Your task to perform on an android device: see tabs open on other devices in the chrome app Image 0: 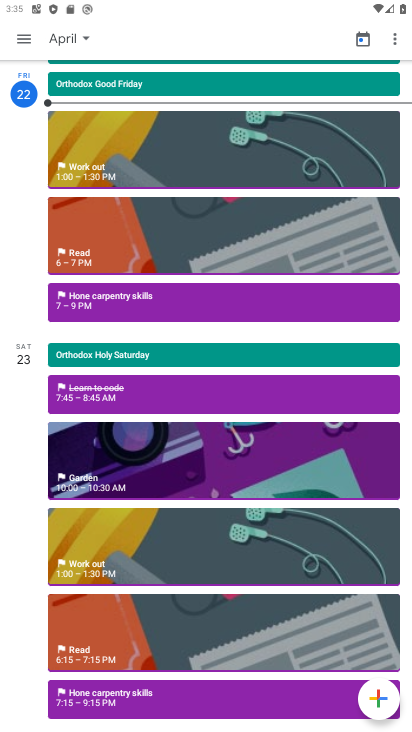
Step 0: press home button
Your task to perform on an android device: see tabs open on other devices in the chrome app Image 1: 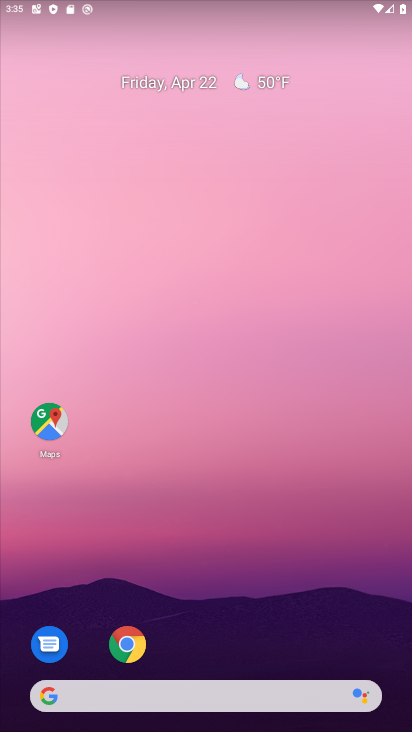
Step 1: drag from (217, 608) to (251, 61)
Your task to perform on an android device: see tabs open on other devices in the chrome app Image 2: 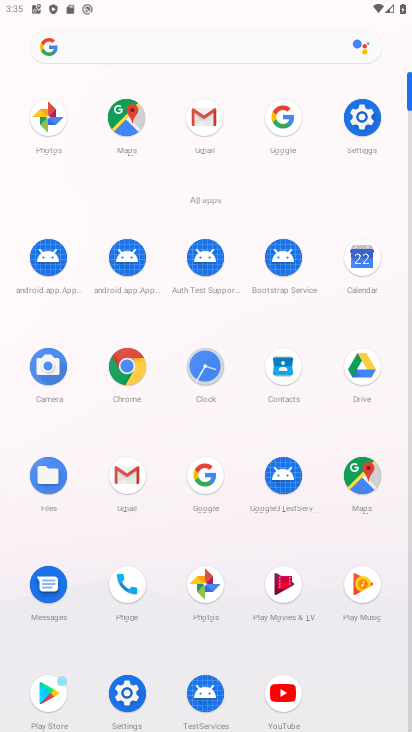
Step 2: click (133, 379)
Your task to perform on an android device: see tabs open on other devices in the chrome app Image 3: 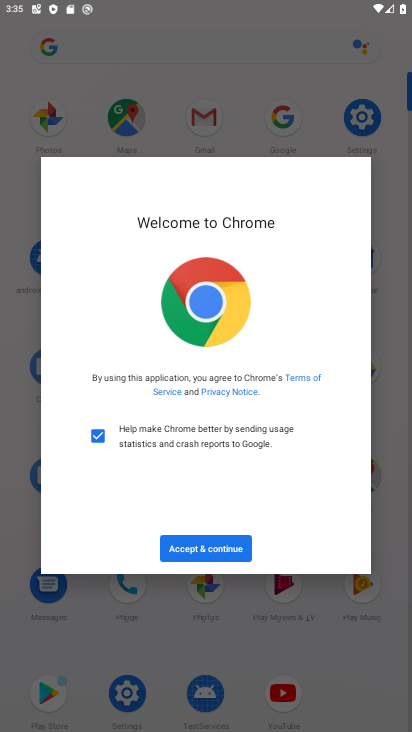
Step 3: click (191, 540)
Your task to perform on an android device: see tabs open on other devices in the chrome app Image 4: 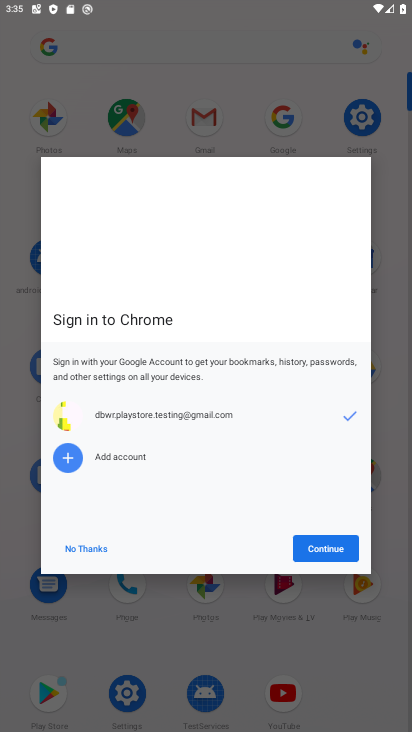
Step 4: click (312, 548)
Your task to perform on an android device: see tabs open on other devices in the chrome app Image 5: 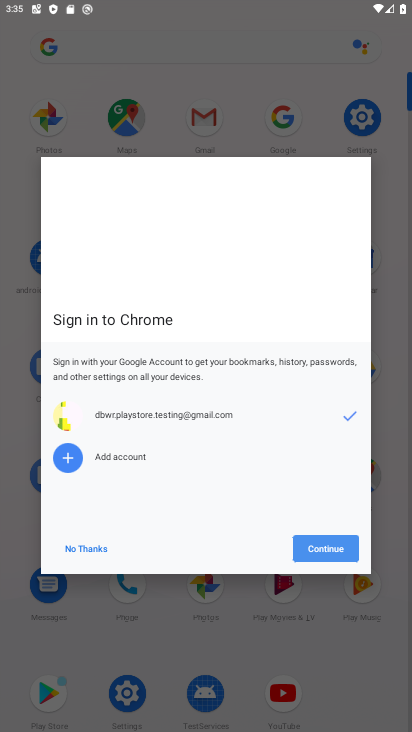
Step 5: click (312, 548)
Your task to perform on an android device: see tabs open on other devices in the chrome app Image 6: 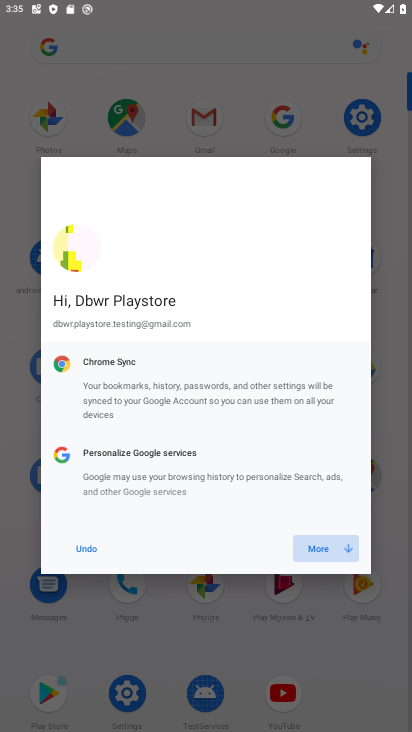
Step 6: click (250, 579)
Your task to perform on an android device: see tabs open on other devices in the chrome app Image 7: 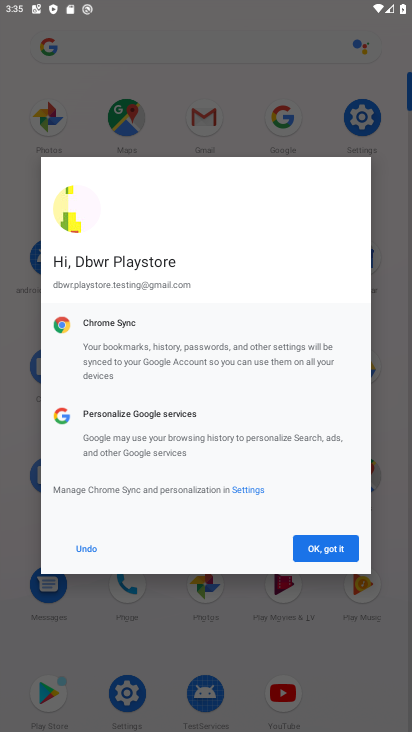
Step 7: click (306, 545)
Your task to perform on an android device: see tabs open on other devices in the chrome app Image 8: 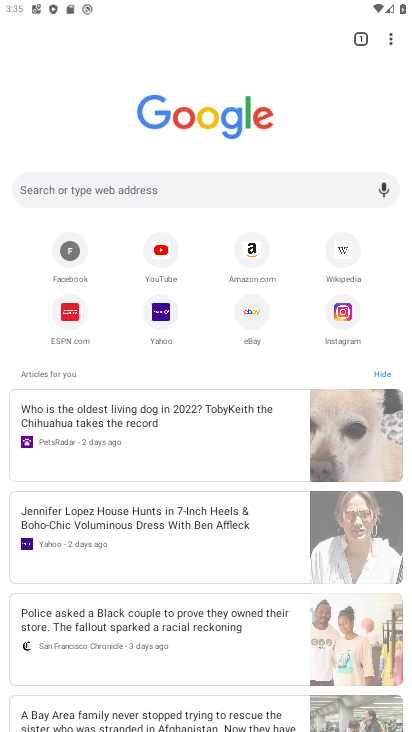
Step 8: click (387, 33)
Your task to perform on an android device: see tabs open on other devices in the chrome app Image 9: 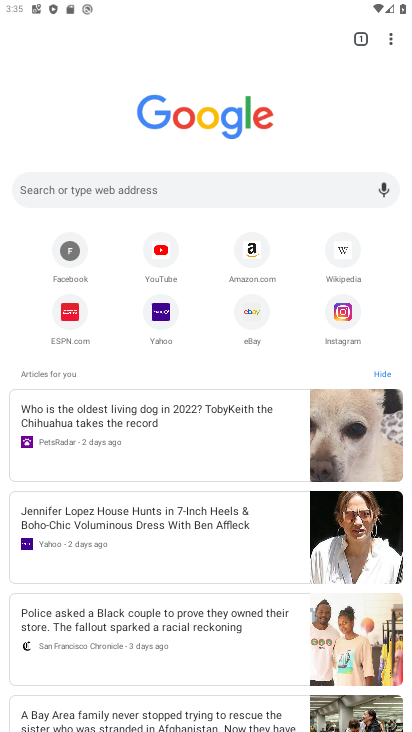
Step 9: task complete